Your task to perform on an android device: open a new tab in the chrome app Image 0: 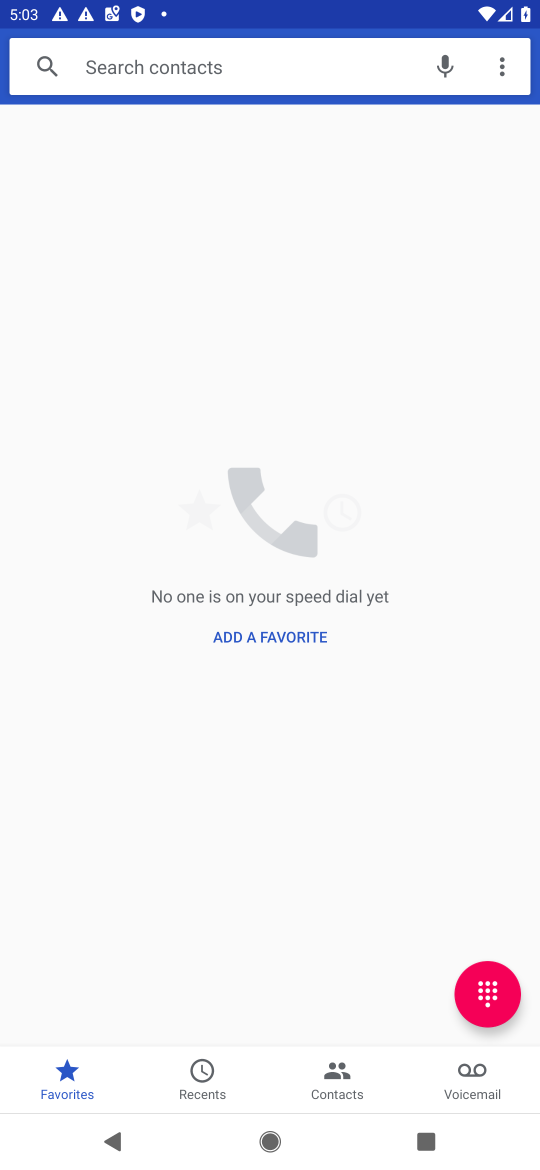
Step 0: press home button
Your task to perform on an android device: open a new tab in the chrome app Image 1: 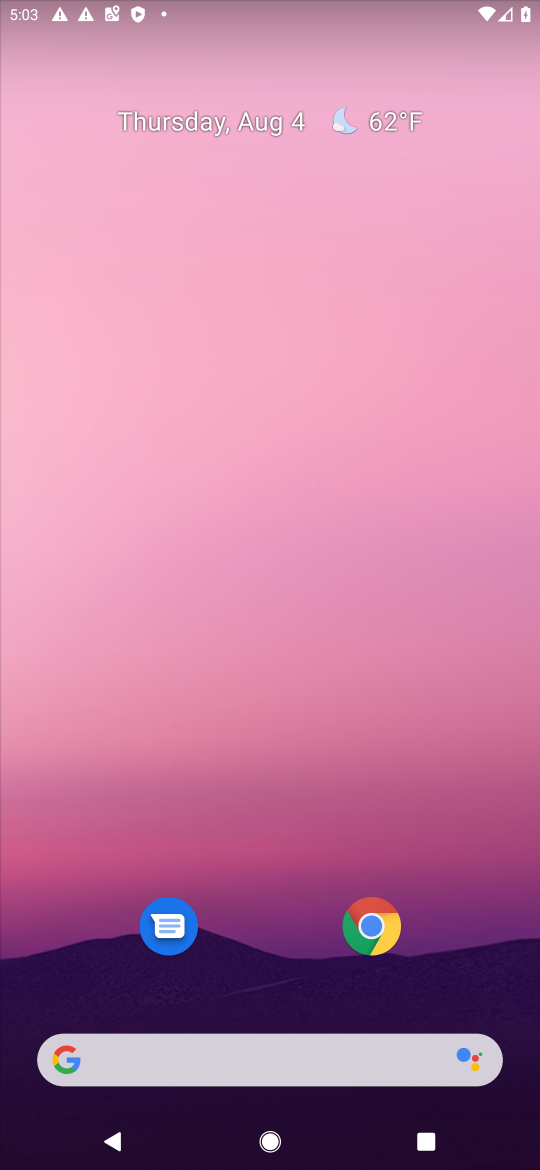
Step 1: drag from (279, 710) to (330, 225)
Your task to perform on an android device: open a new tab in the chrome app Image 2: 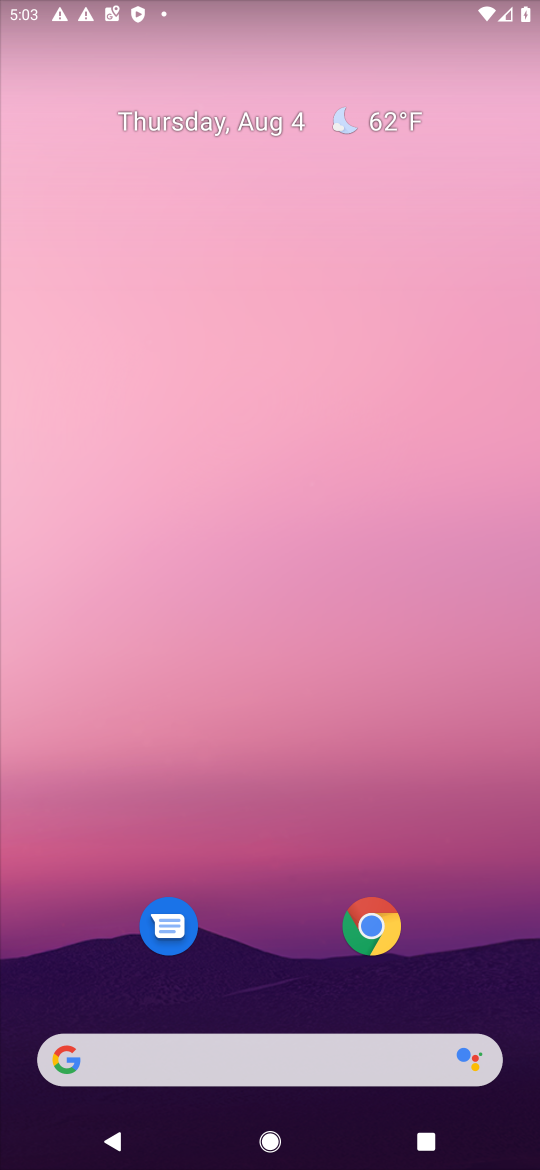
Step 2: drag from (306, 665) to (343, 169)
Your task to perform on an android device: open a new tab in the chrome app Image 3: 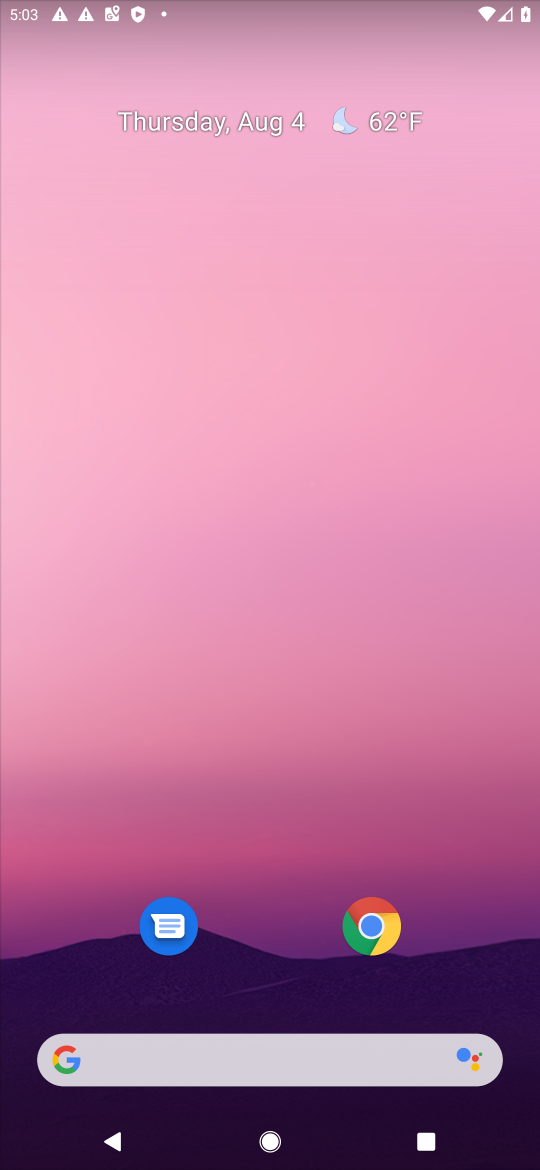
Step 3: drag from (305, 756) to (317, 216)
Your task to perform on an android device: open a new tab in the chrome app Image 4: 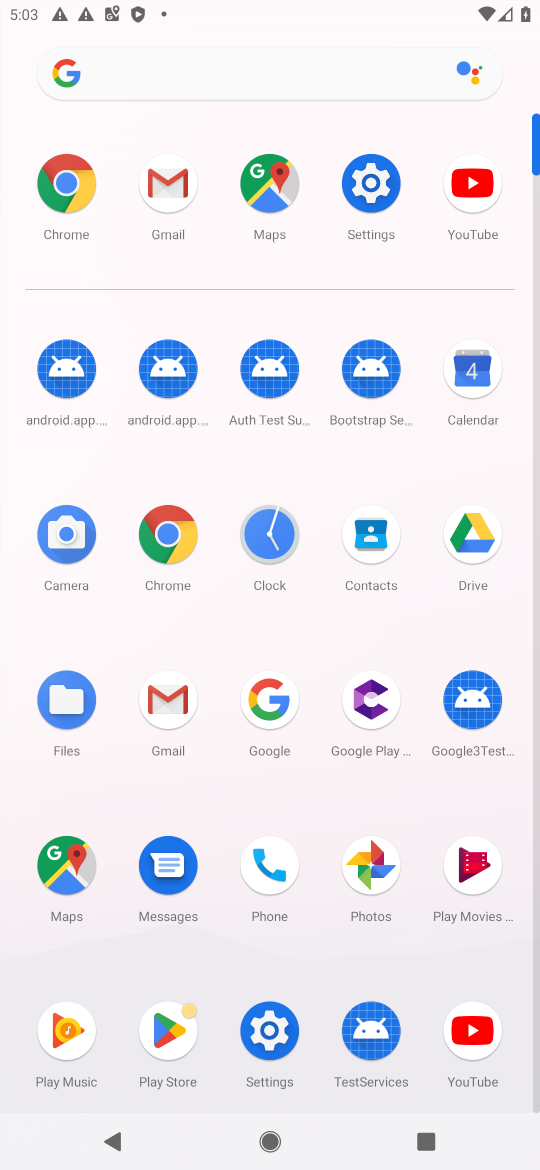
Step 4: click (80, 168)
Your task to perform on an android device: open a new tab in the chrome app Image 5: 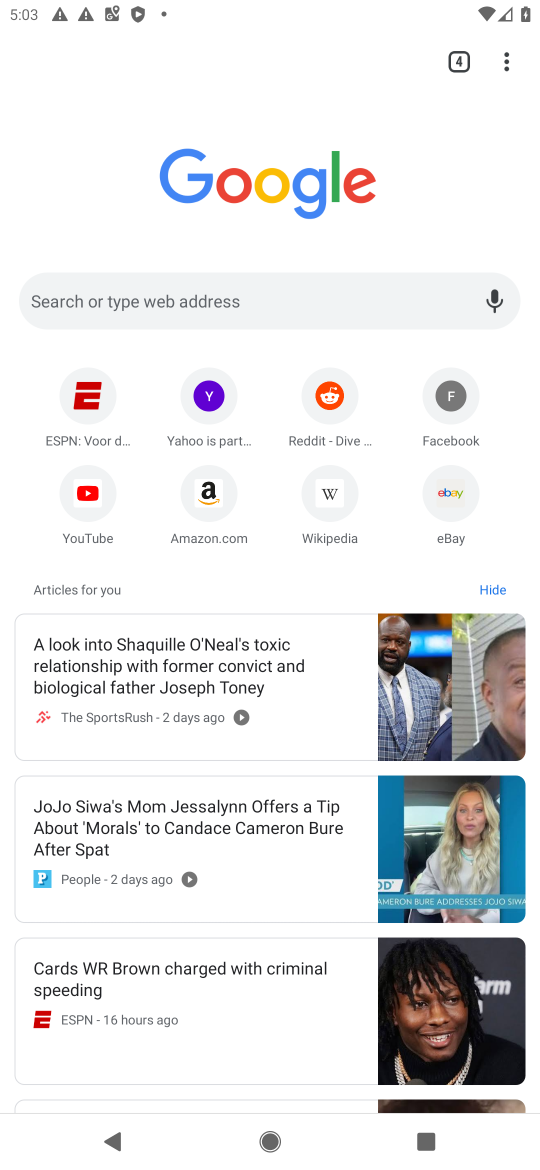
Step 5: click (461, 62)
Your task to perform on an android device: open a new tab in the chrome app Image 6: 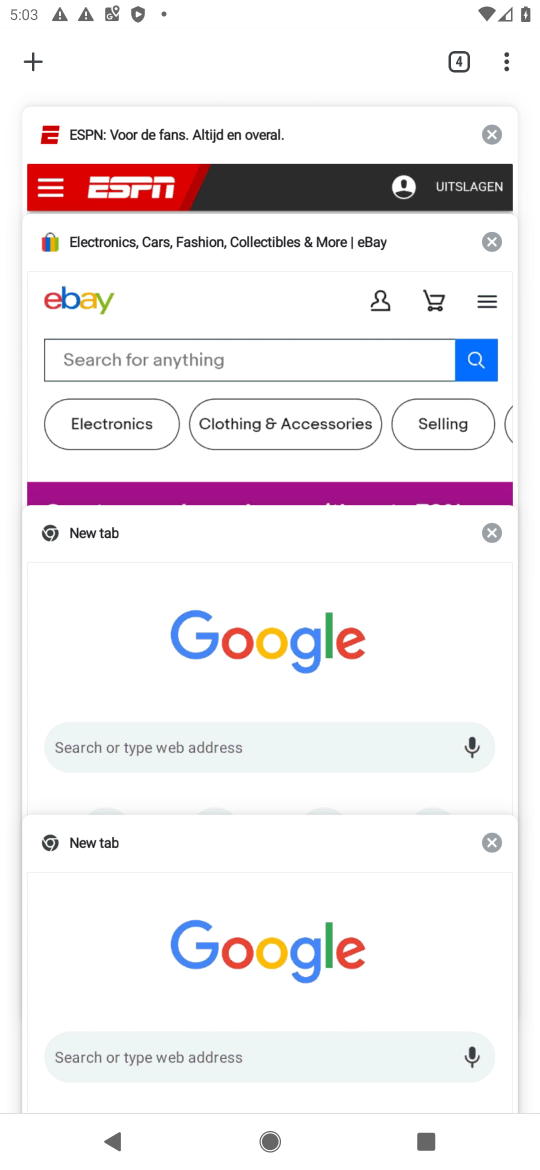
Step 6: click (29, 62)
Your task to perform on an android device: open a new tab in the chrome app Image 7: 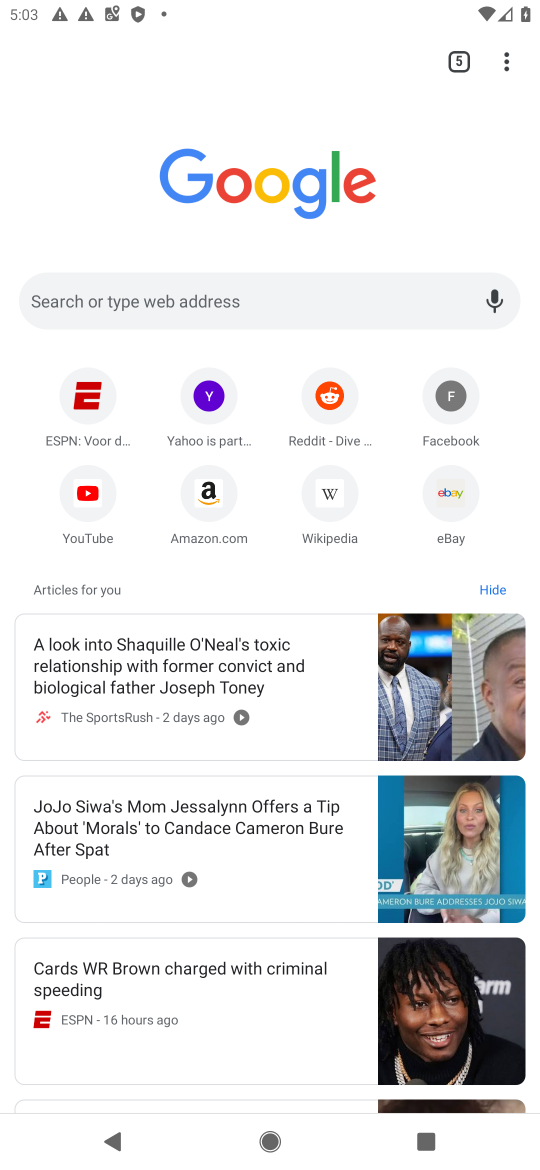
Step 7: task complete